Your task to perform on an android device: change keyboard looks Image 0: 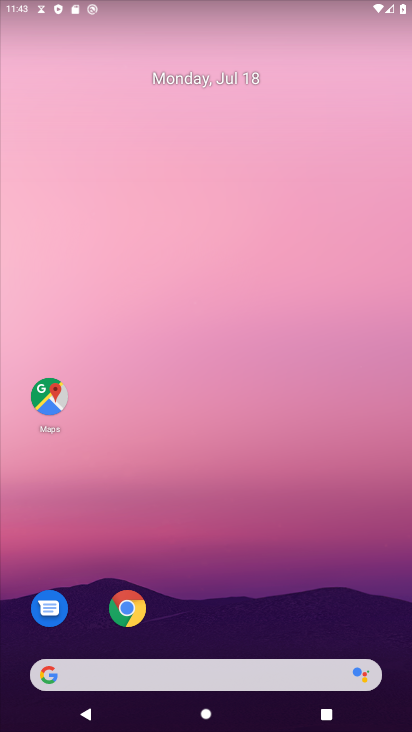
Step 0: drag from (323, 643) to (338, 59)
Your task to perform on an android device: change keyboard looks Image 1: 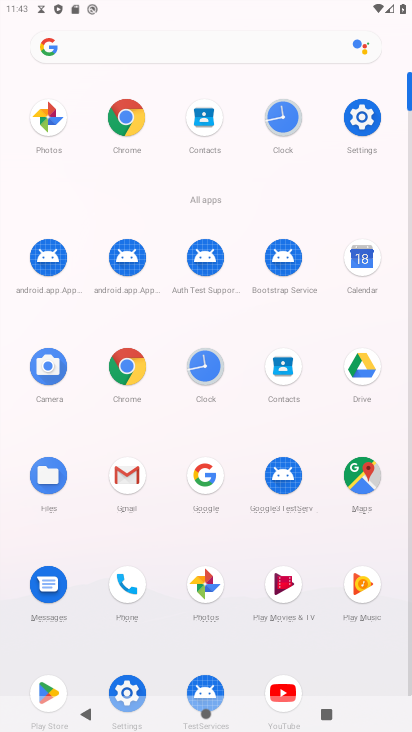
Step 1: click (365, 114)
Your task to perform on an android device: change keyboard looks Image 2: 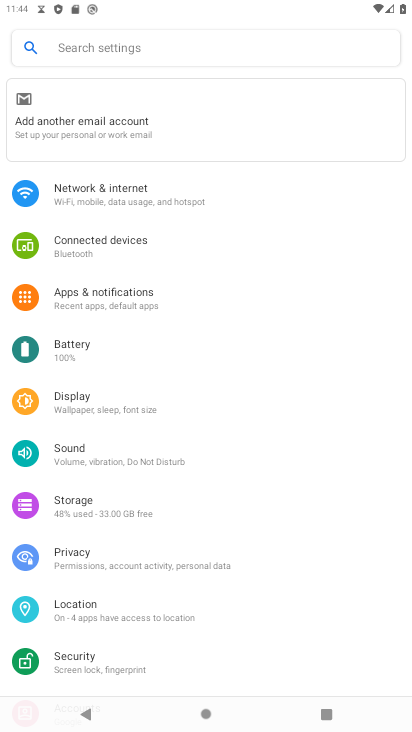
Step 2: drag from (148, 593) to (190, 186)
Your task to perform on an android device: change keyboard looks Image 3: 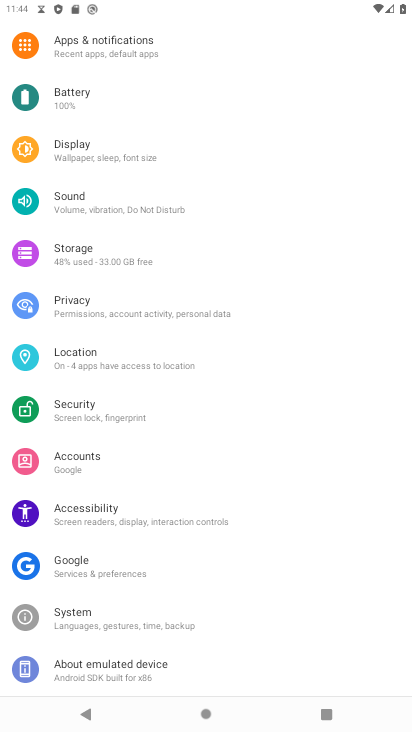
Step 3: click (110, 622)
Your task to perform on an android device: change keyboard looks Image 4: 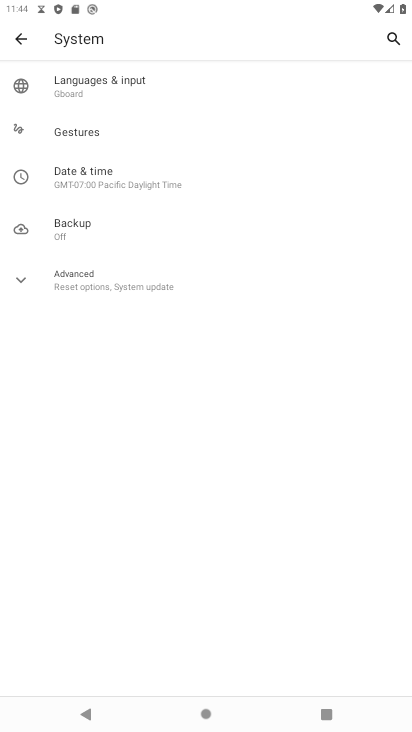
Step 4: click (148, 91)
Your task to perform on an android device: change keyboard looks Image 5: 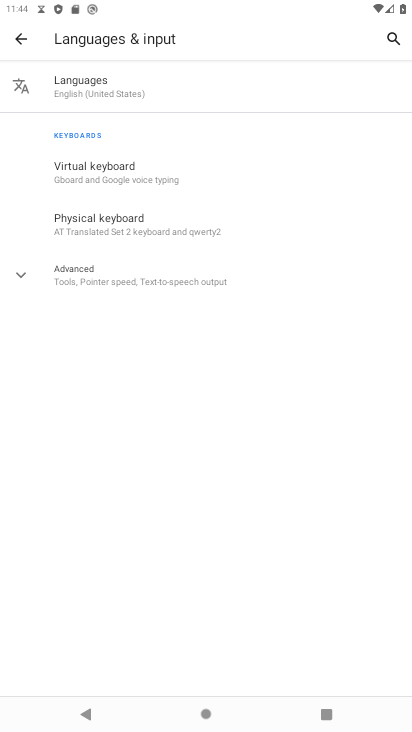
Step 5: click (123, 177)
Your task to perform on an android device: change keyboard looks Image 6: 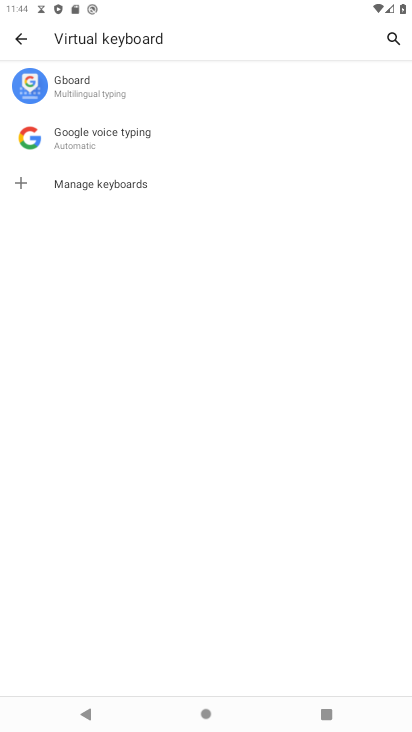
Step 6: click (93, 82)
Your task to perform on an android device: change keyboard looks Image 7: 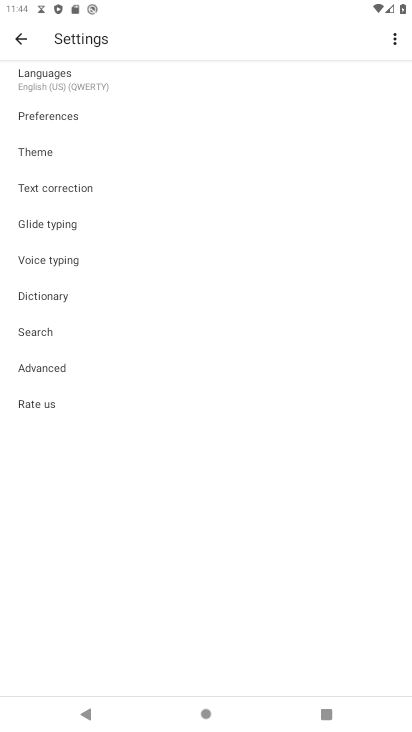
Step 7: click (40, 140)
Your task to perform on an android device: change keyboard looks Image 8: 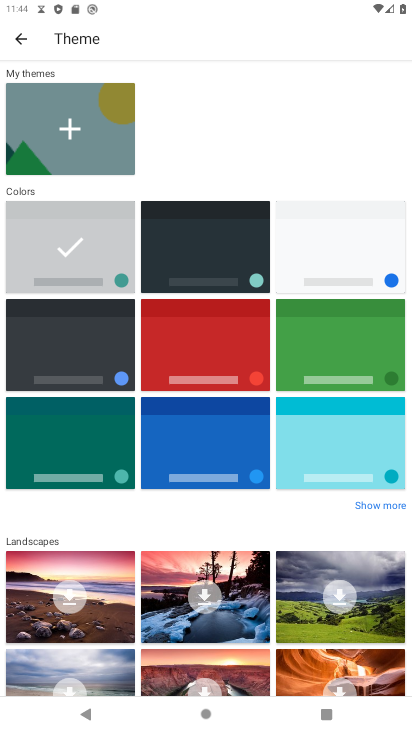
Step 8: click (346, 355)
Your task to perform on an android device: change keyboard looks Image 9: 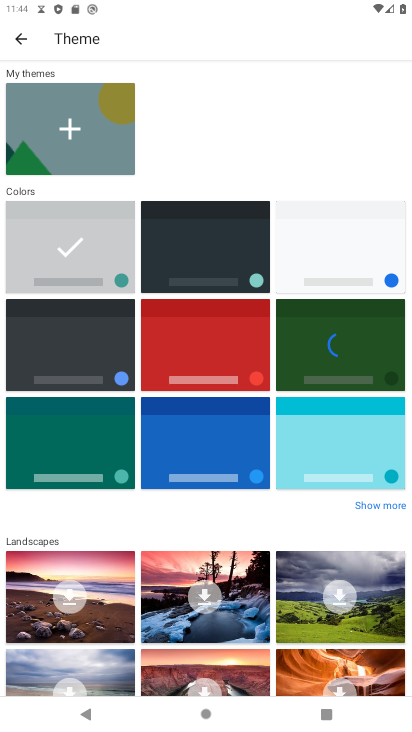
Step 9: task complete